Your task to perform on an android device: turn on the 12-hour format for clock Image 0: 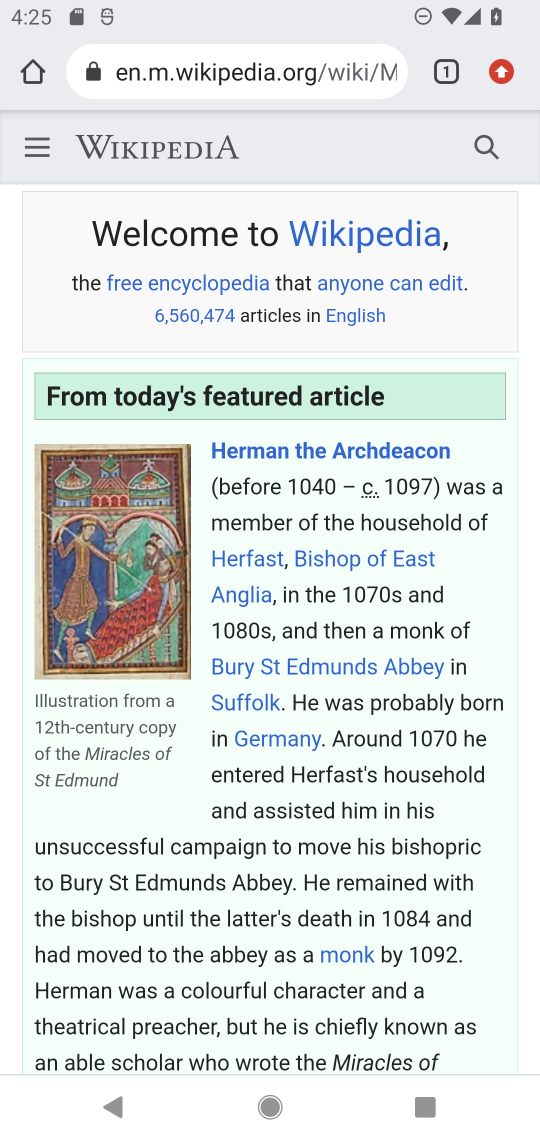
Step 0: press home button
Your task to perform on an android device: turn on the 12-hour format for clock Image 1: 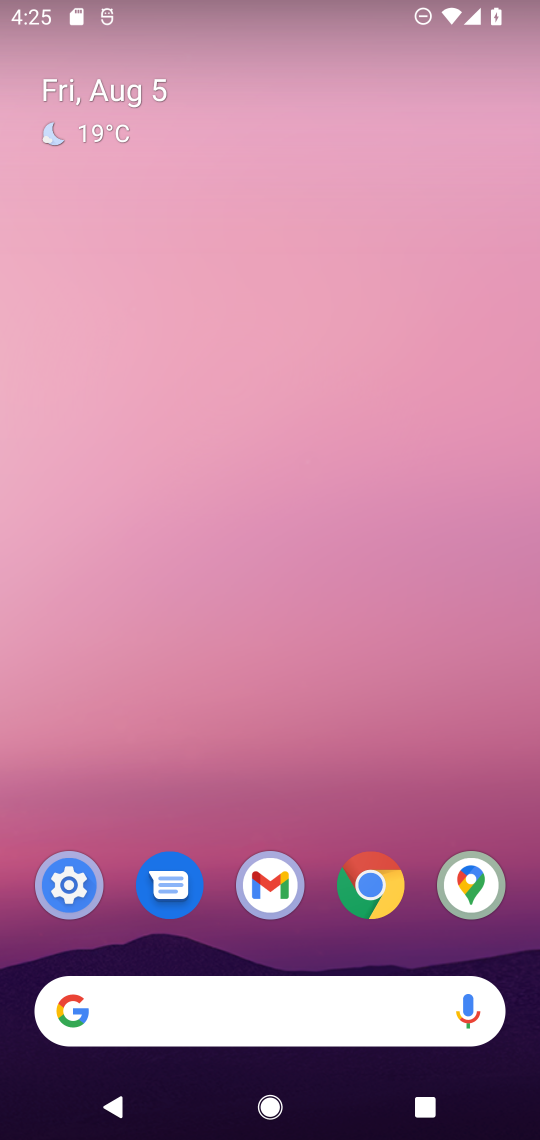
Step 1: drag from (309, 899) to (311, 184)
Your task to perform on an android device: turn on the 12-hour format for clock Image 2: 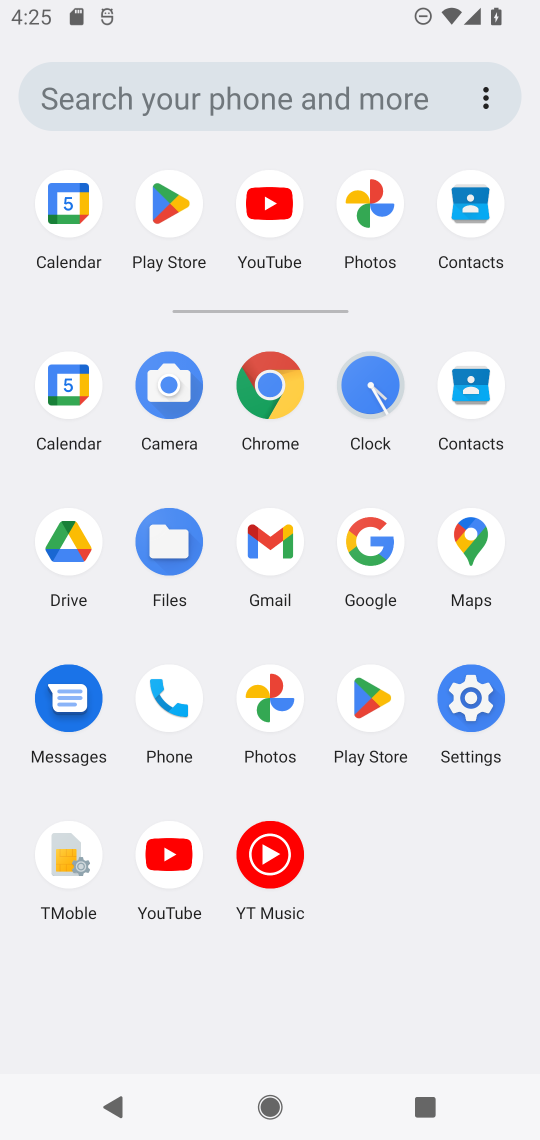
Step 2: click (360, 382)
Your task to perform on an android device: turn on the 12-hour format for clock Image 3: 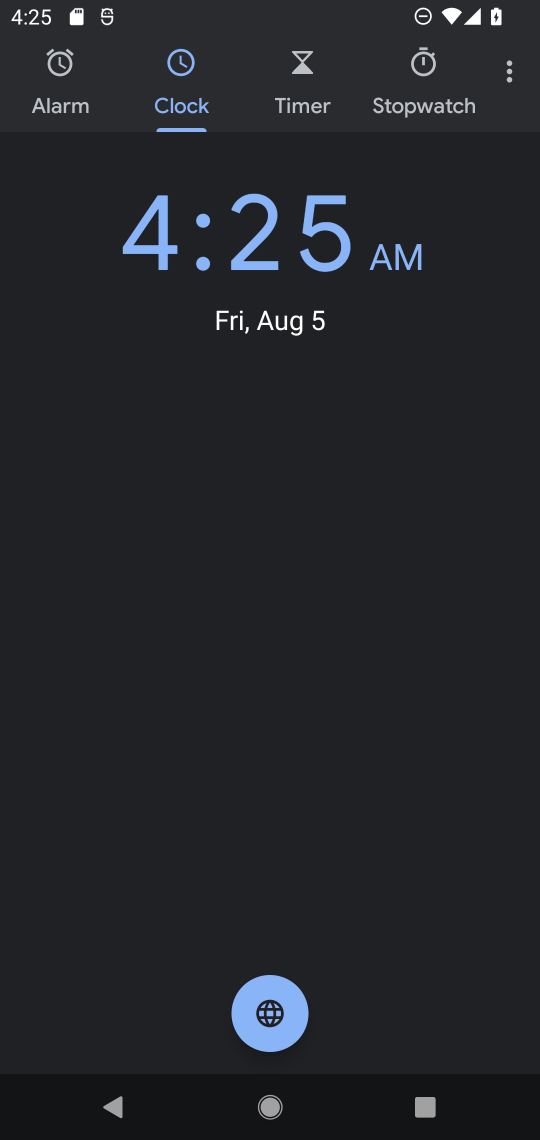
Step 3: click (504, 79)
Your task to perform on an android device: turn on the 12-hour format for clock Image 4: 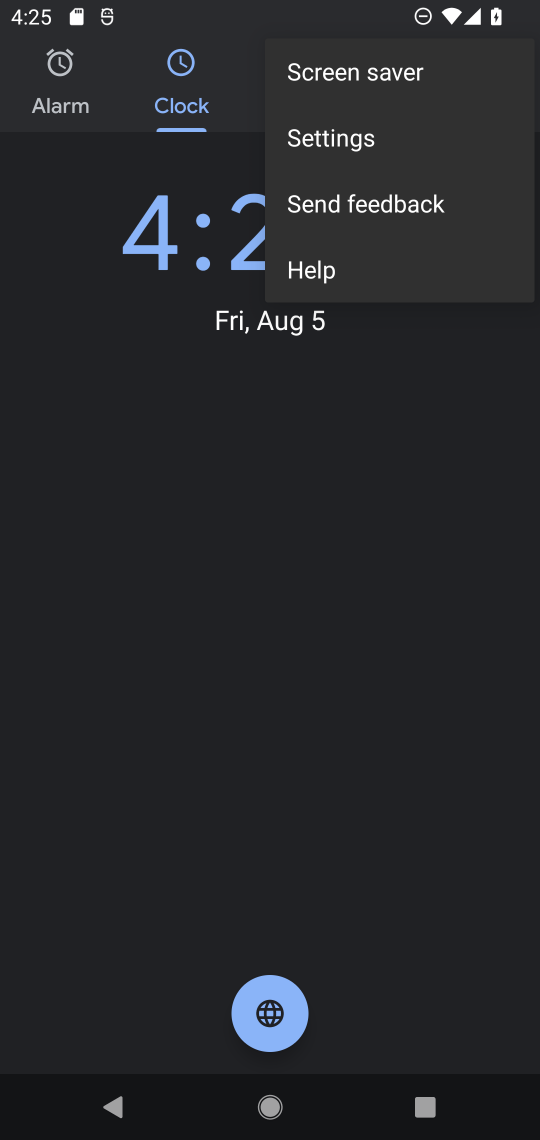
Step 4: click (315, 138)
Your task to perform on an android device: turn on the 12-hour format for clock Image 5: 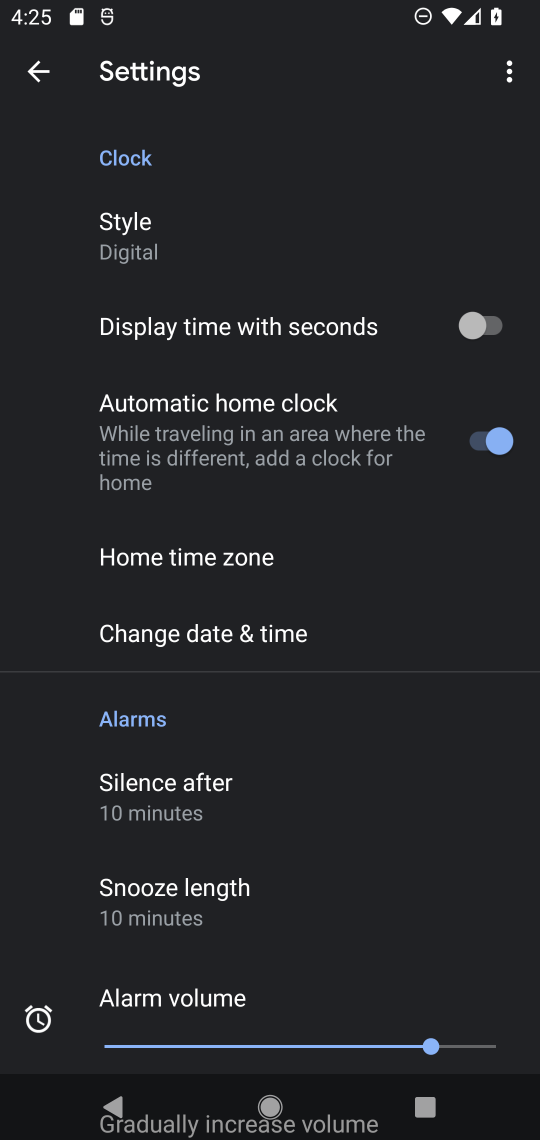
Step 5: click (309, 639)
Your task to perform on an android device: turn on the 12-hour format for clock Image 6: 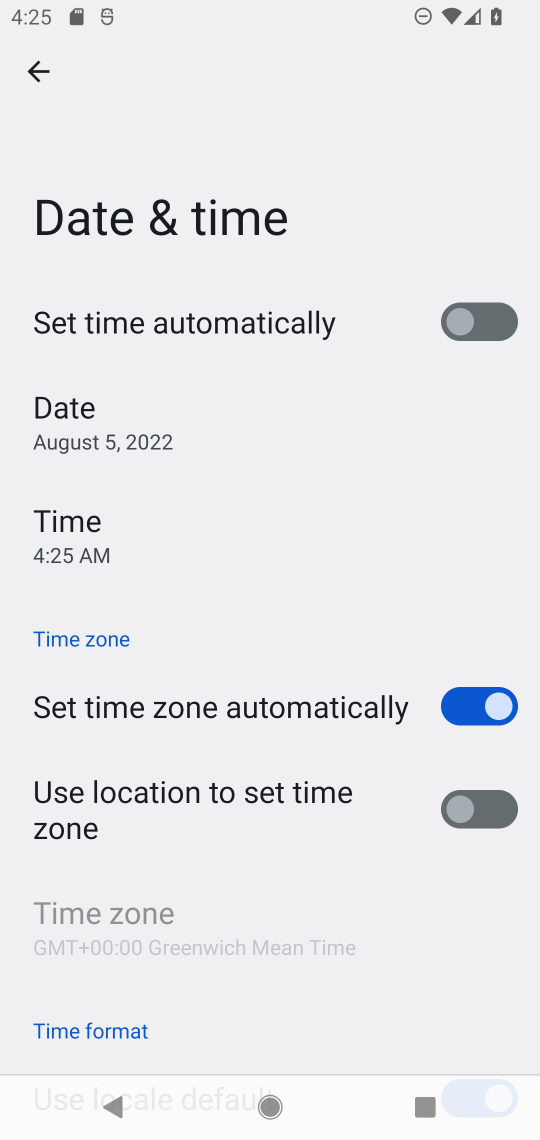
Step 6: task complete